Your task to perform on an android device: Go to display settings Image 0: 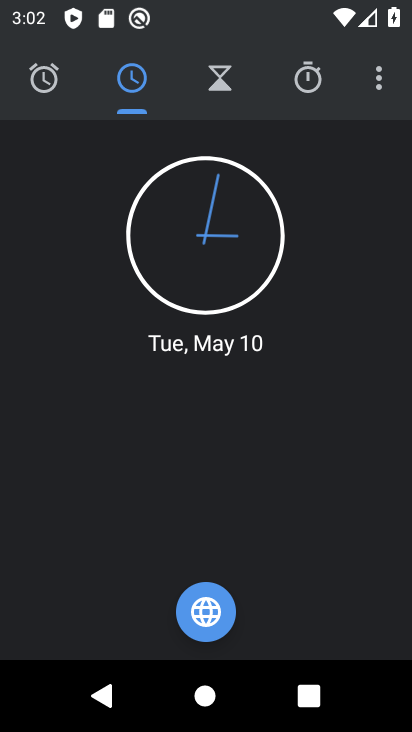
Step 0: press home button
Your task to perform on an android device: Go to display settings Image 1: 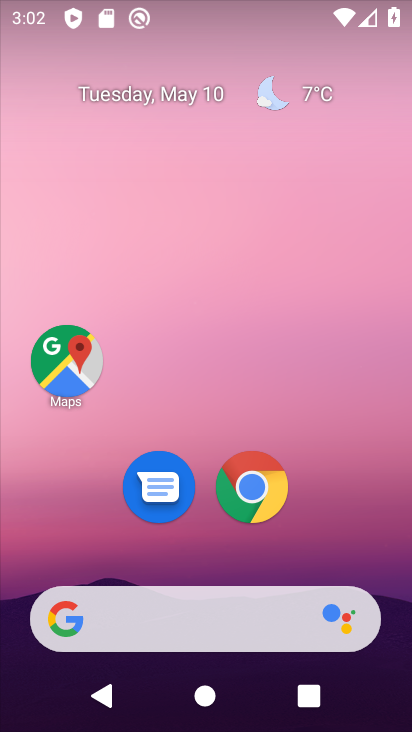
Step 1: drag from (327, 441) to (276, 166)
Your task to perform on an android device: Go to display settings Image 2: 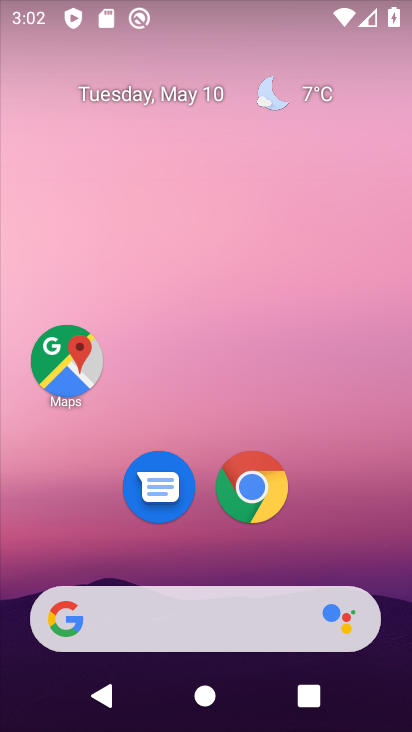
Step 2: drag from (326, 463) to (328, 154)
Your task to perform on an android device: Go to display settings Image 3: 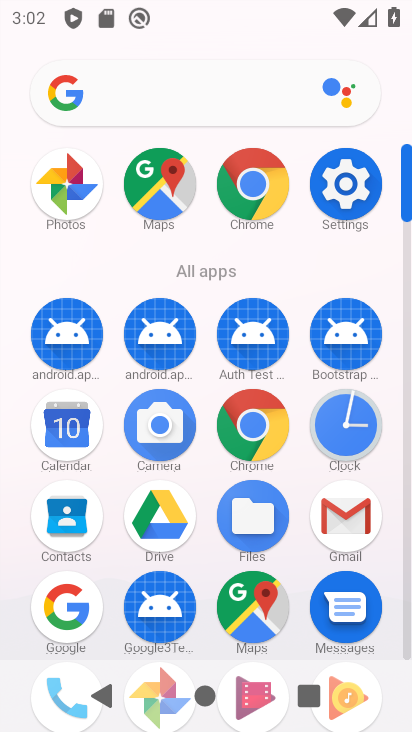
Step 3: click (343, 183)
Your task to perform on an android device: Go to display settings Image 4: 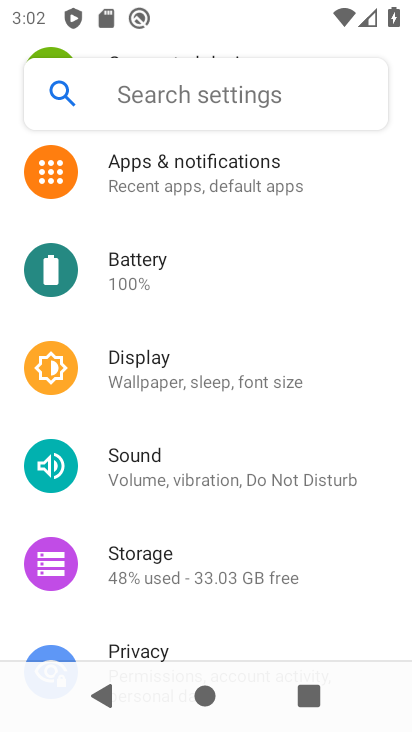
Step 4: click (215, 374)
Your task to perform on an android device: Go to display settings Image 5: 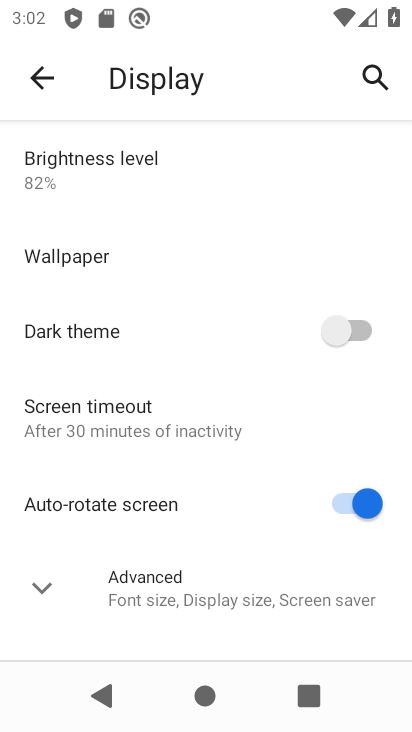
Step 5: task complete